Your task to perform on an android device: change the clock display to analog Image 0: 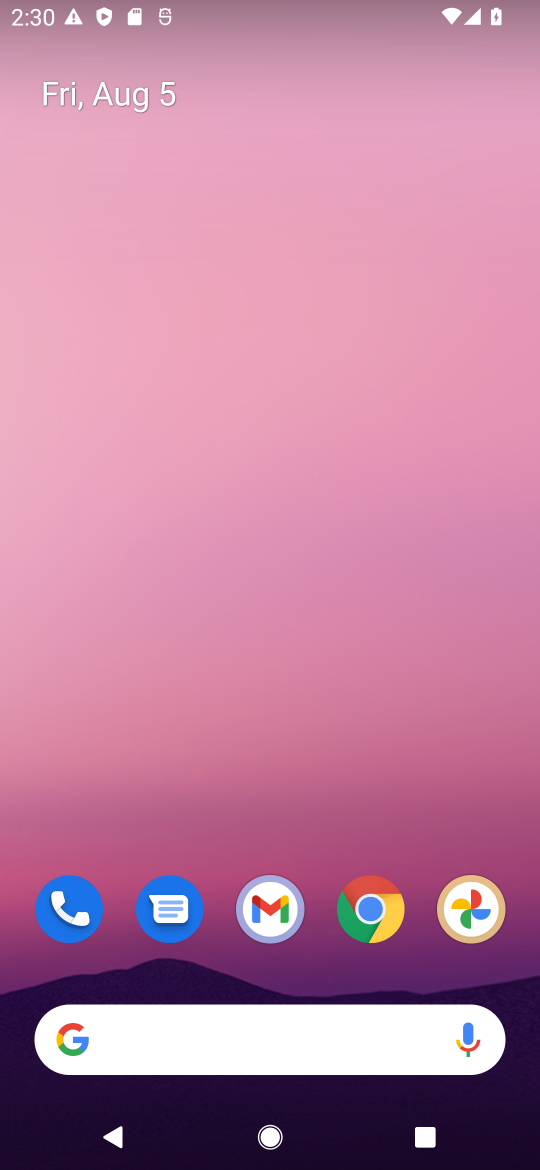
Step 0: drag from (350, 793) to (397, 213)
Your task to perform on an android device: change the clock display to analog Image 1: 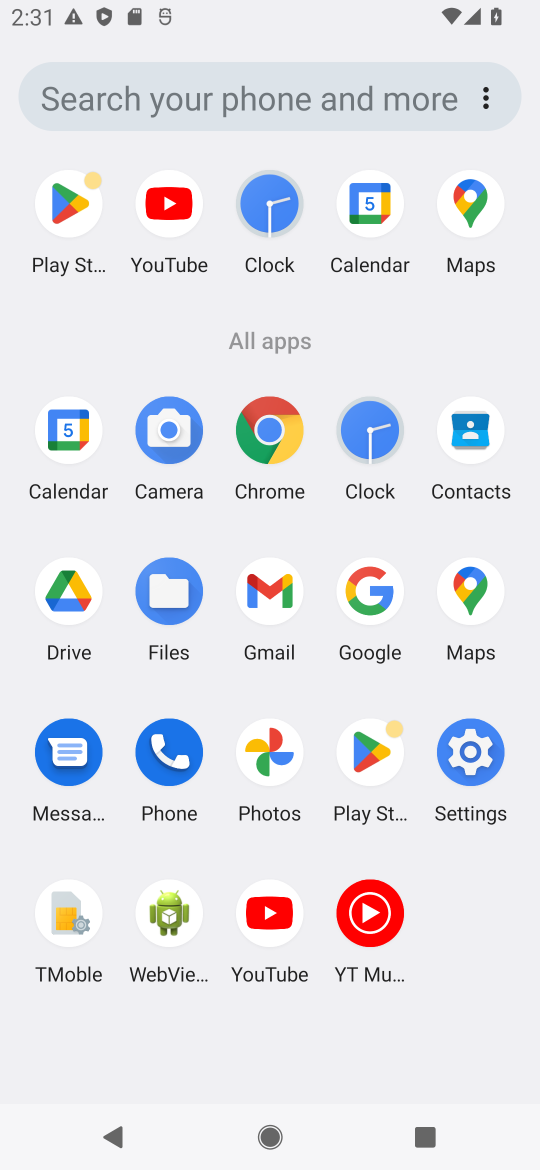
Step 1: click (371, 436)
Your task to perform on an android device: change the clock display to analog Image 2: 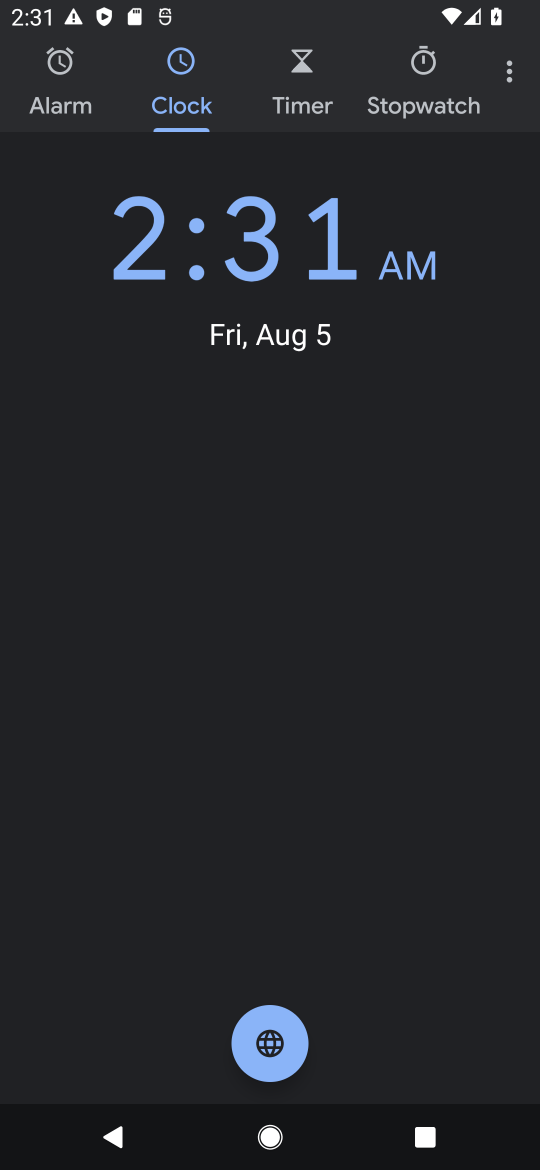
Step 2: click (511, 75)
Your task to perform on an android device: change the clock display to analog Image 3: 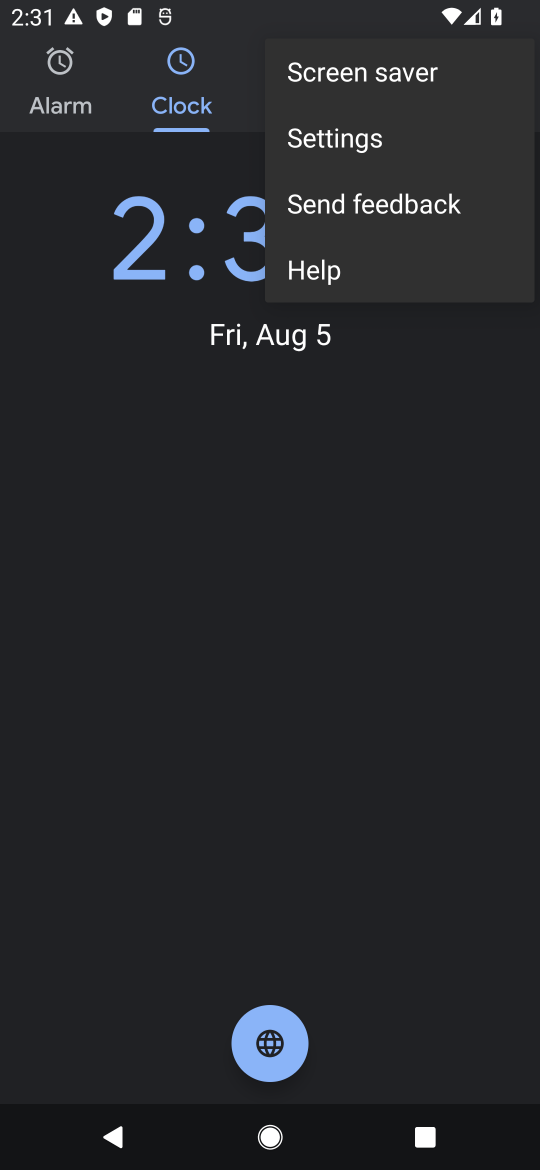
Step 3: click (404, 142)
Your task to perform on an android device: change the clock display to analog Image 4: 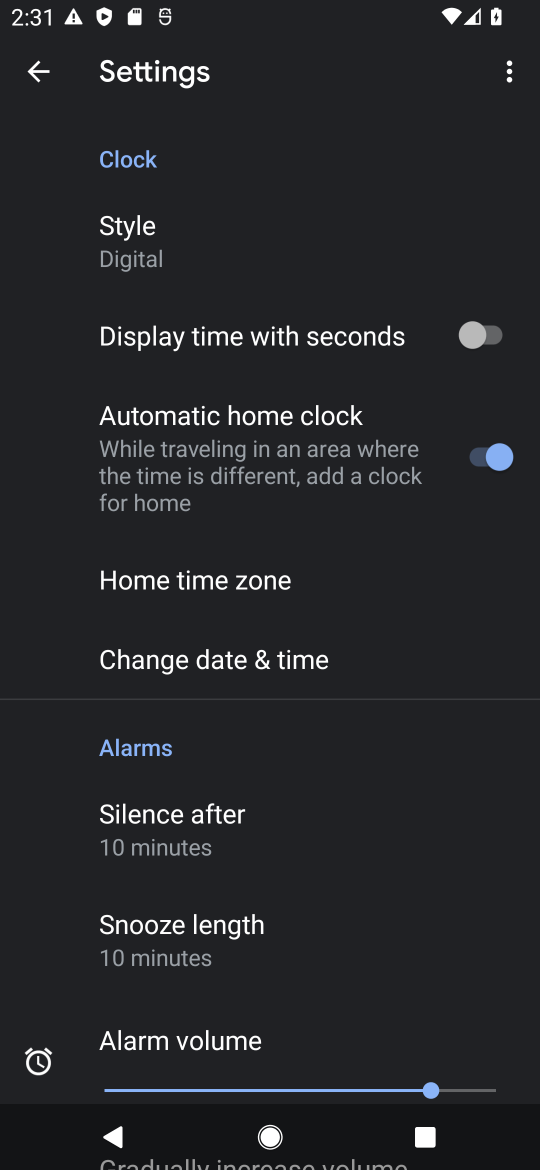
Step 4: drag from (437, 827) to (479, 609)
Your task to perform on an android device: change the clock display to analog Image 5: 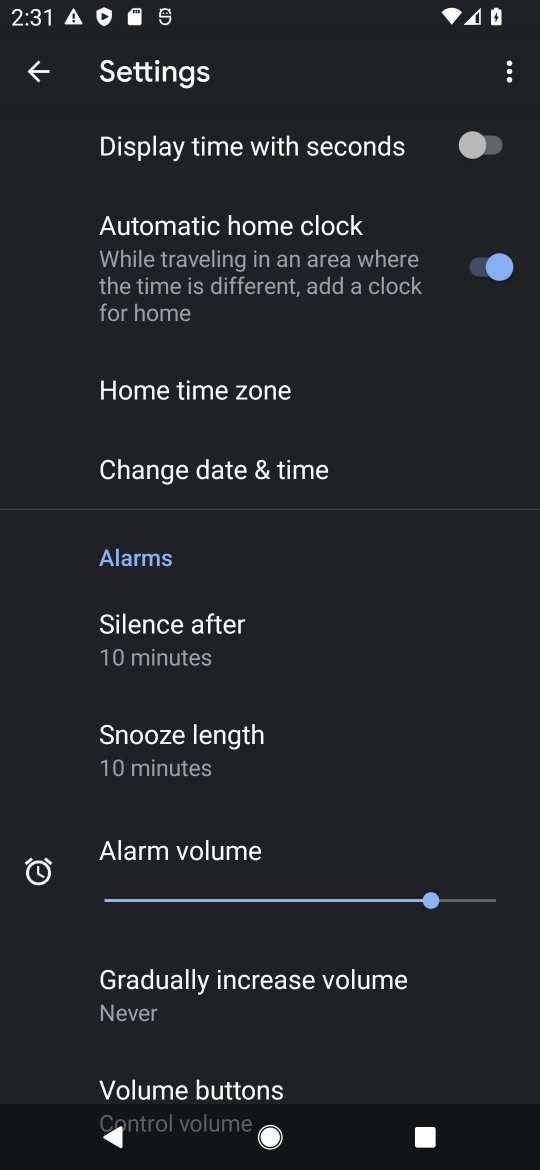
Step 5: drag from (462, 834) to (454, 634)
Your task to perform on an android device: change the clock display to analog Image 6: 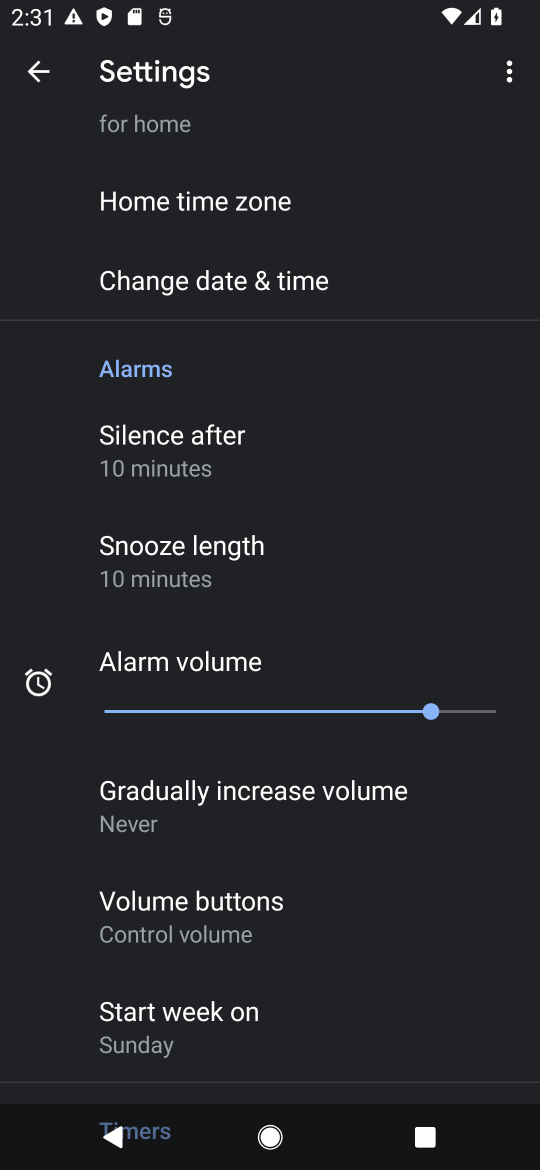
Step 6: drag from (461, 863) to (488, 660)
Your task to perform on an android device: change the clock display to analog Image 7: 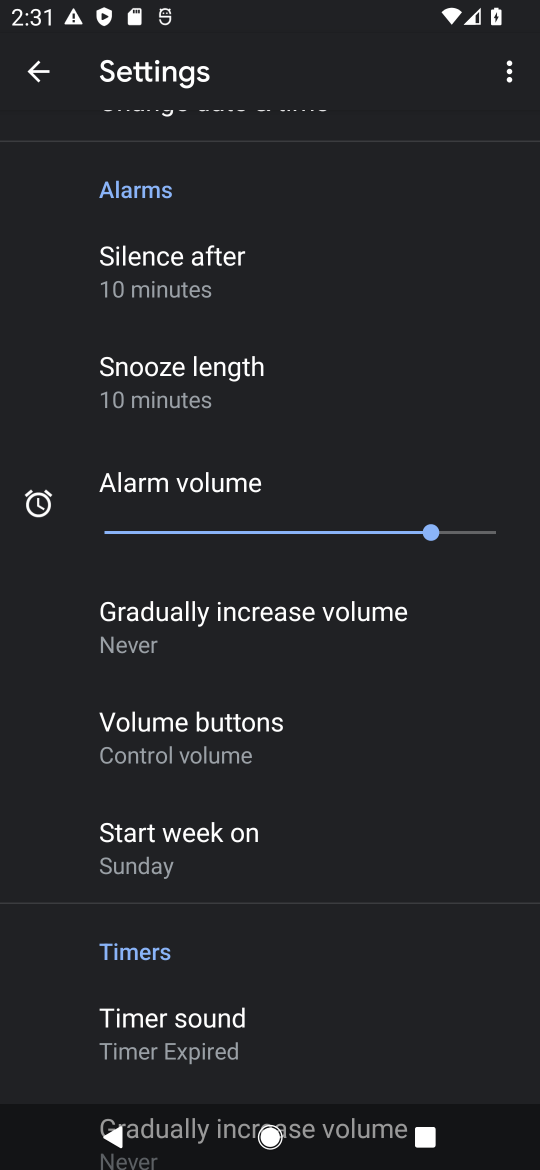
Step 7: drag from (462, 919) to (463, 730)
Your task to perform on an android device: change the clock display to analog Image 8: 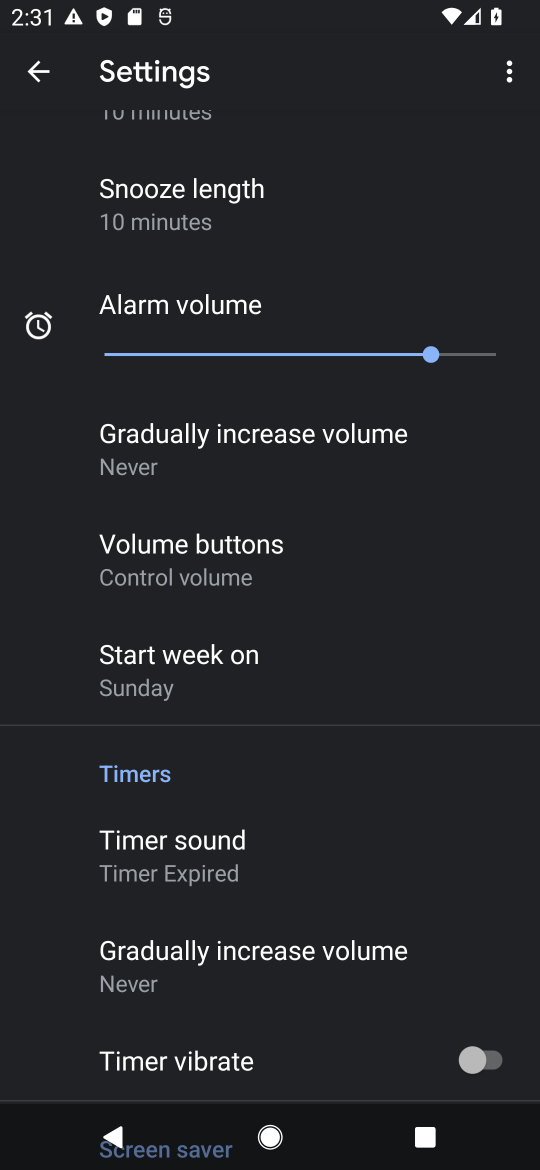
Step 8: drag from (463, 909) to (474, 684)
Your task to perform on an android device: change the clock display to analog Image 9: 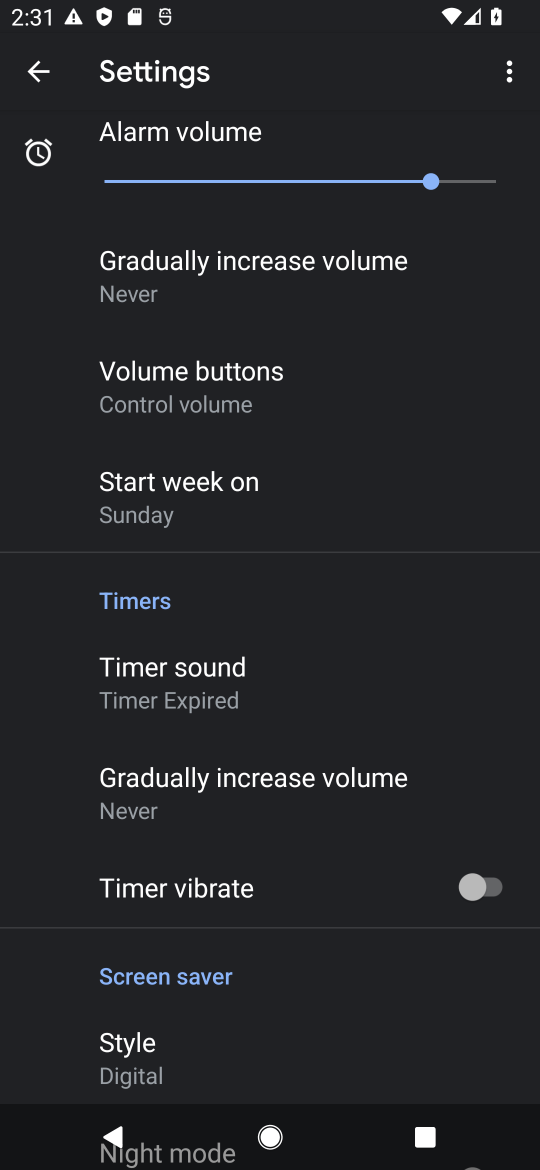
Step 9: drag from (396, 971) to (422, 733)
Your task to perform on an android device: change the clock display to analog Image 10: 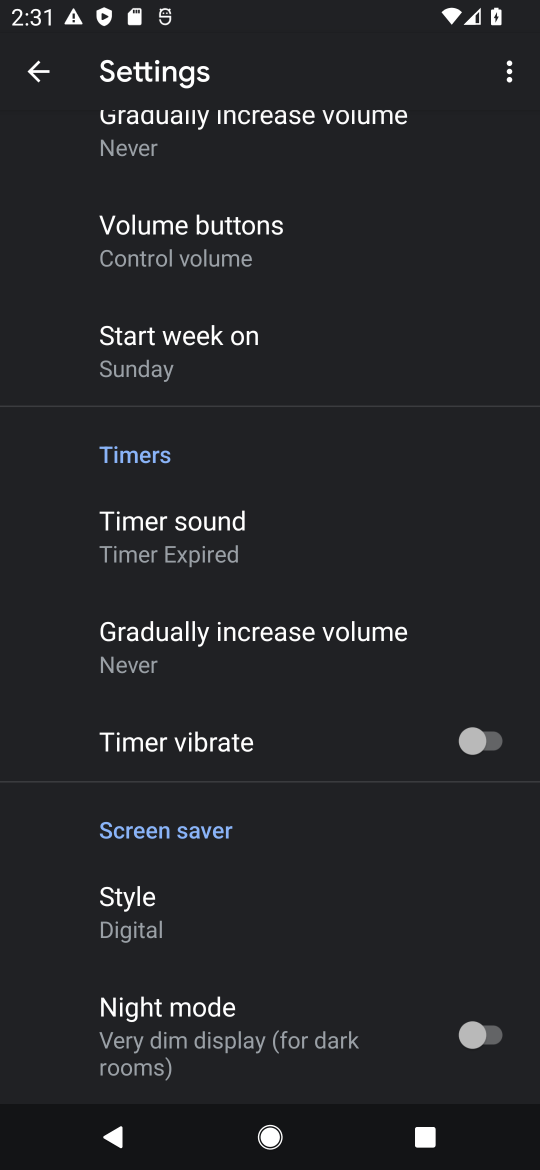
Step 10: drag from (388, 1004) to (395, 729)
Your task to perform on an android device: change the clock display to analog Image 11: 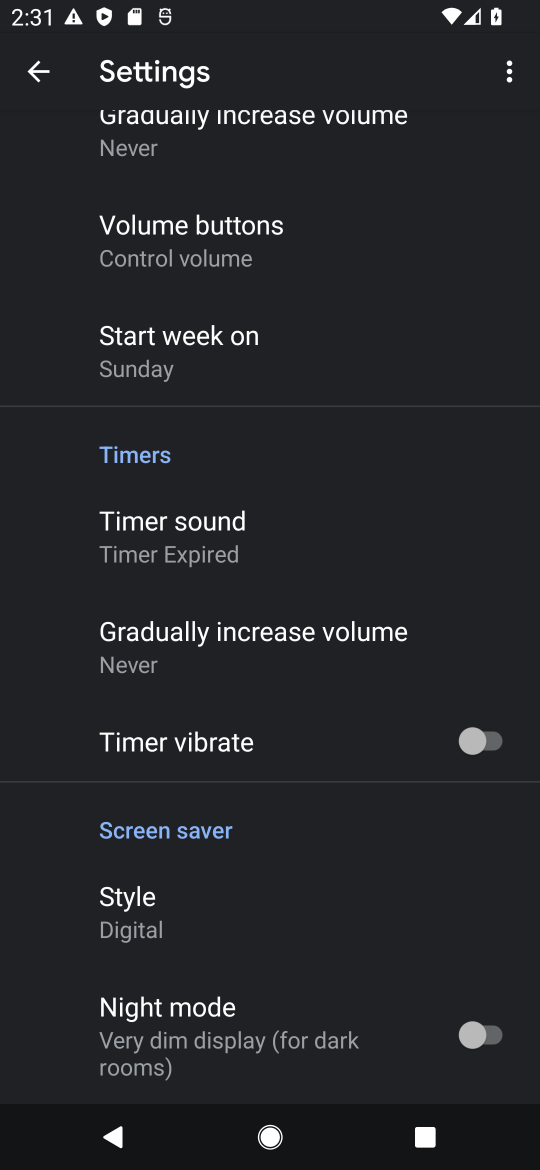
Step 11: drag from (434, 421) to (428, 630)
Your task to perform on an android device: change the clock display to analog Image 12: 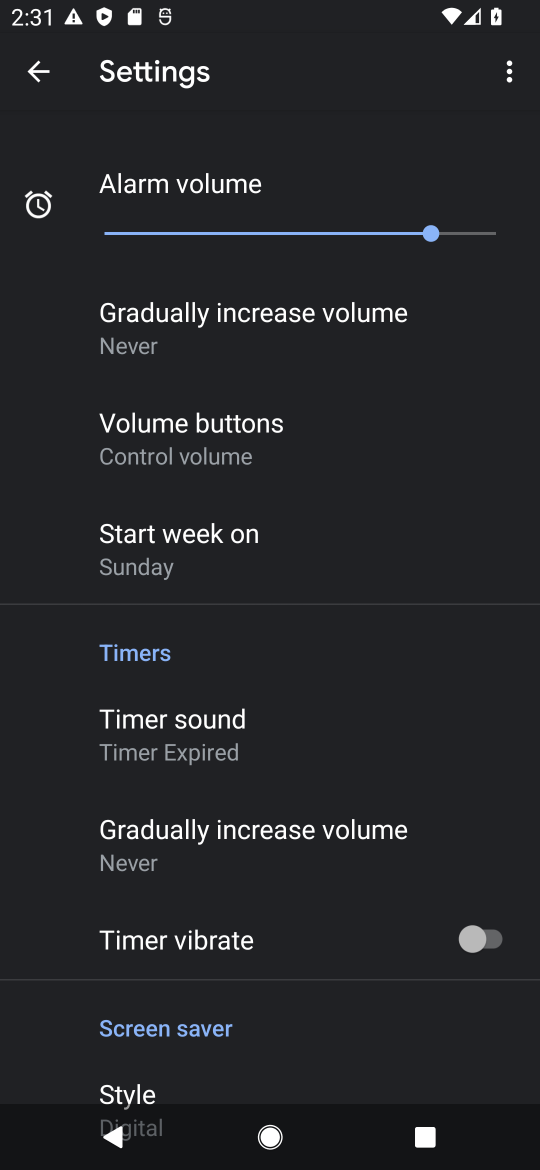
Step 12: drag from (450, 436) to (442, 654)
Your task to perform on an android device: change the clock display to analog Image 13: 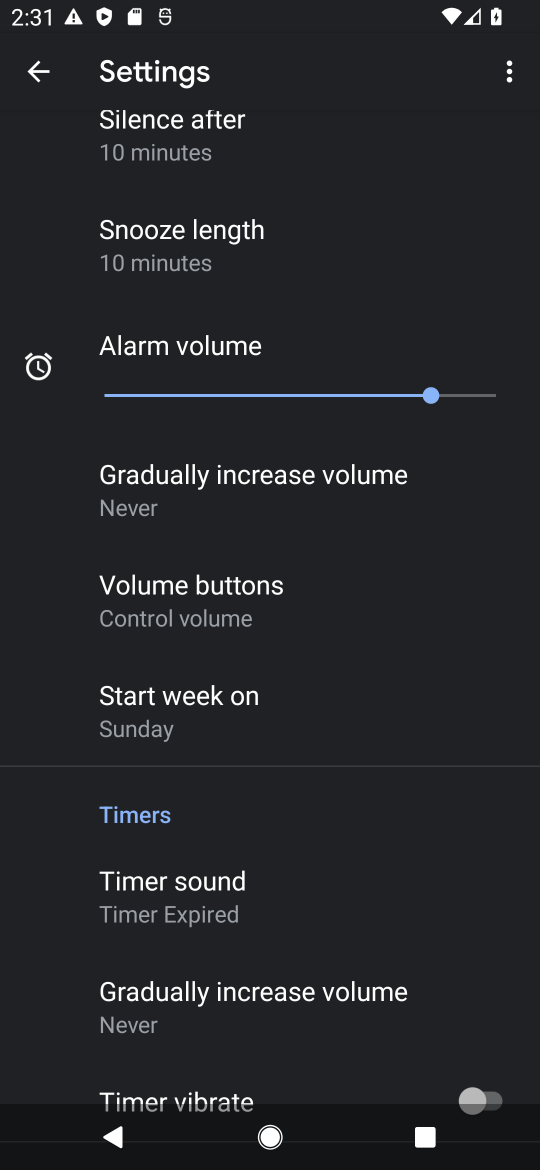
Step 13: drag from (450, 272) to (459, 579)
Your task to perform on an android device: change the clock display to analog Image 14: 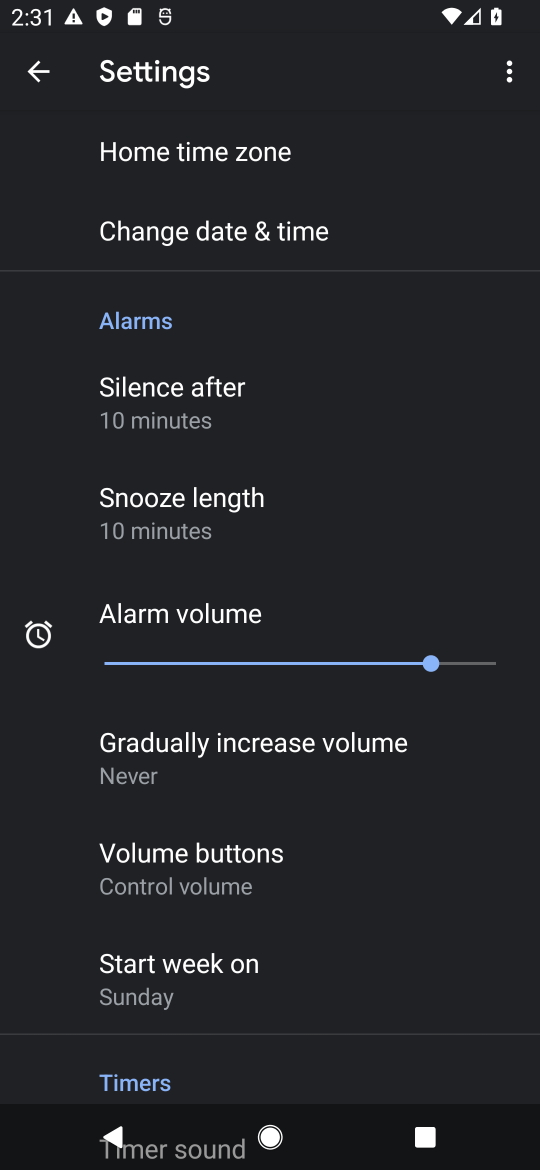
Step 14: drag from (459, 265) to (448, 581)
Your task to perform on an android device: change the clock display to analog Image 15: 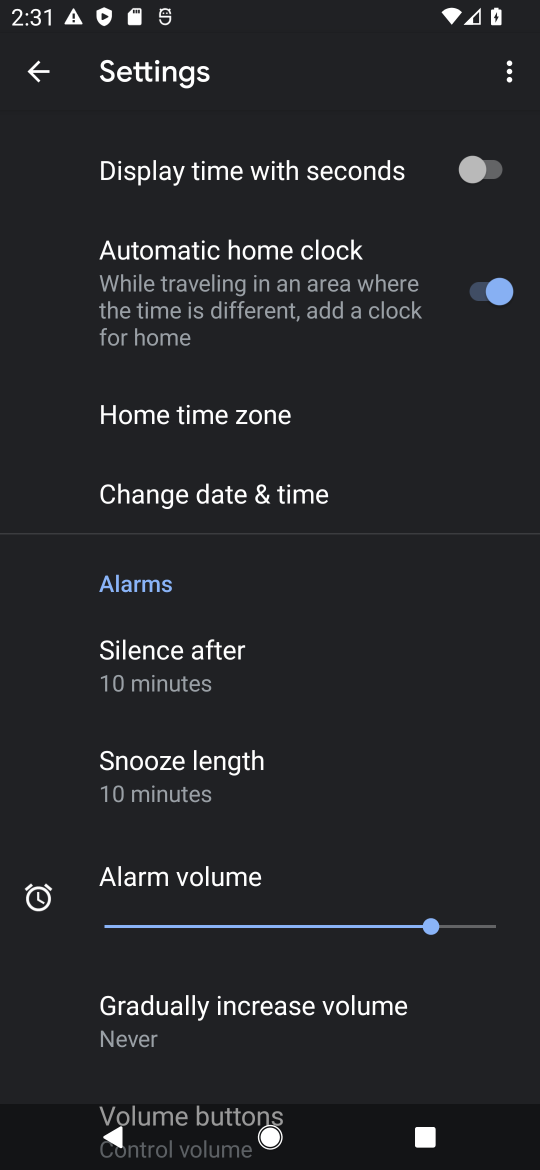
Step 15: drag from (413, 211) to (415, 533)
Your task to perform on an android device: change the clock display to analog Image 16: 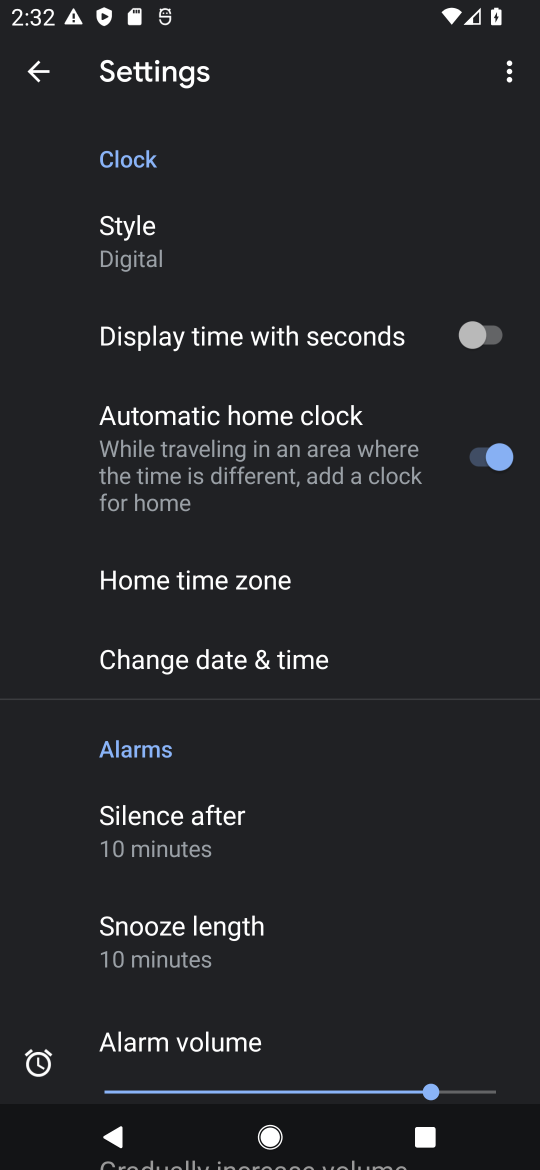
Step 16: click (161, 246)
Your task to perform on an android device: change the clock display to analog Image 17: 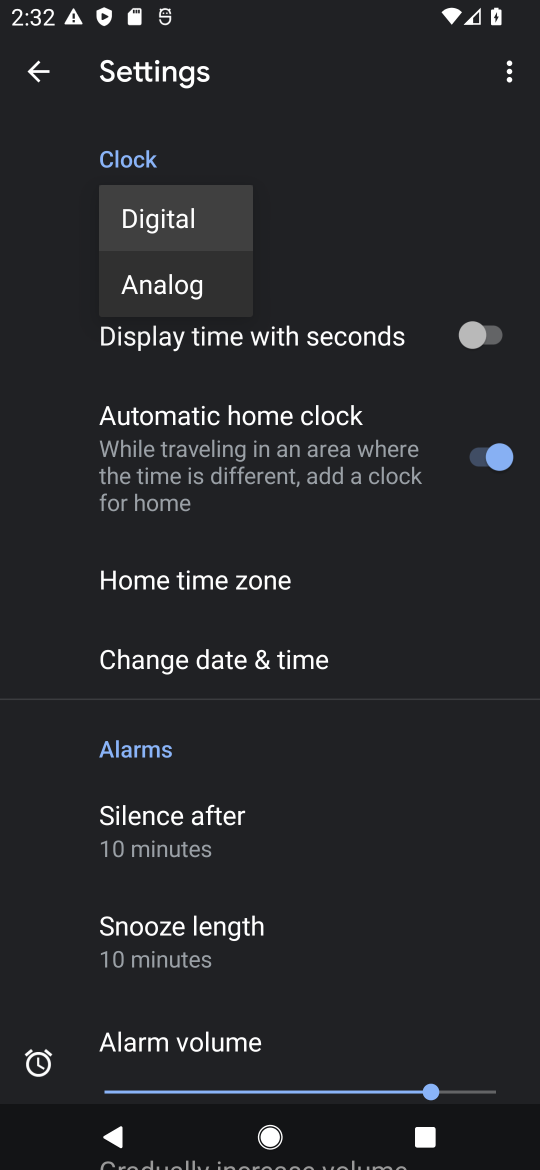
Step 17: click (199, 294)
Your task to perform on an android device: change the clock display to analog Image 18: 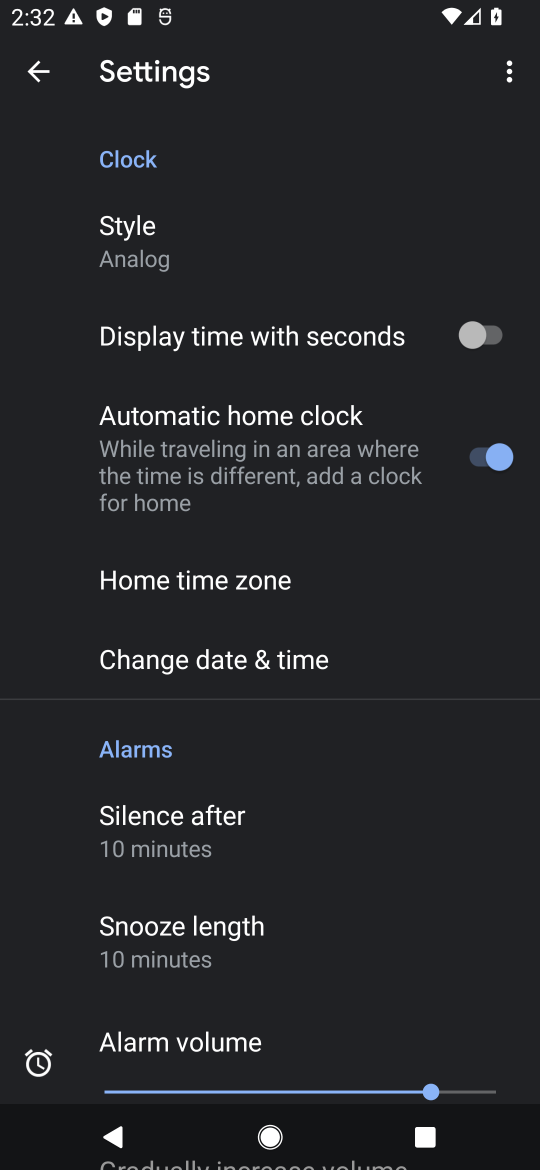
Step 18: task complete